Your task to perform on an android device: refresh tabs in the chrome app Image 0: 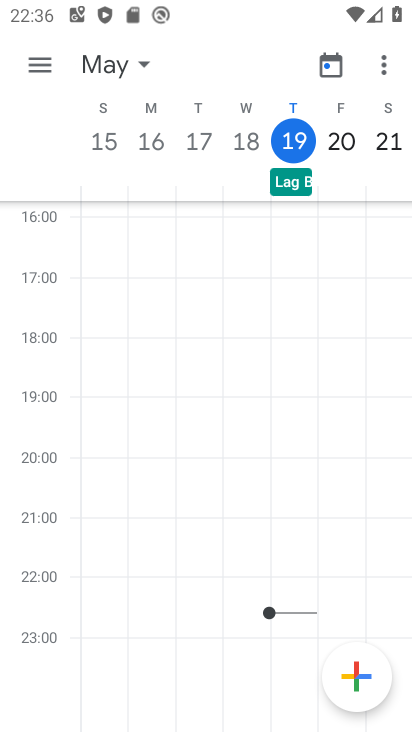
Step 0: press home button
Your task to perform on an android device: refresh tabs in the chrome app Image 1: 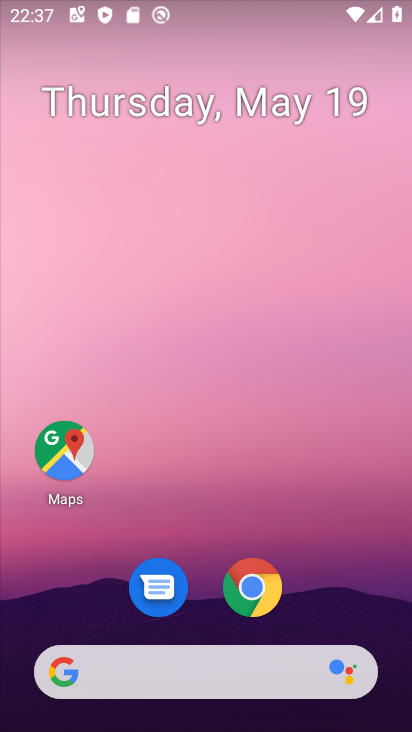
Step 1: drag from (251, 670) to (229, 185)
Your task to perform on an android device: refresh tabs in the chrome app Image 2: 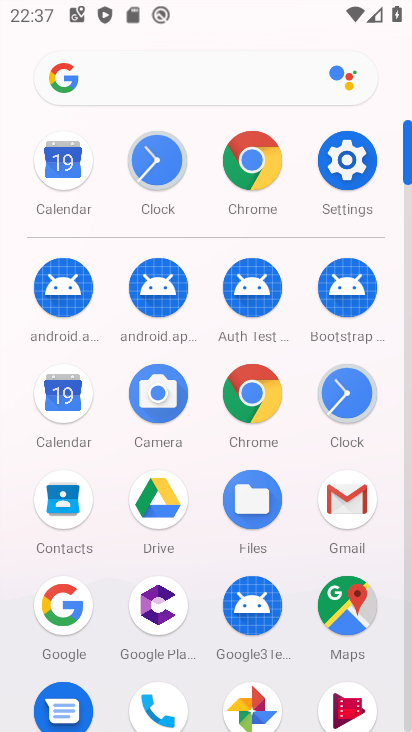
Step 2: click (233, 169)
Your task to perform on an android device: refresh tabs in the chrome app Image 3: 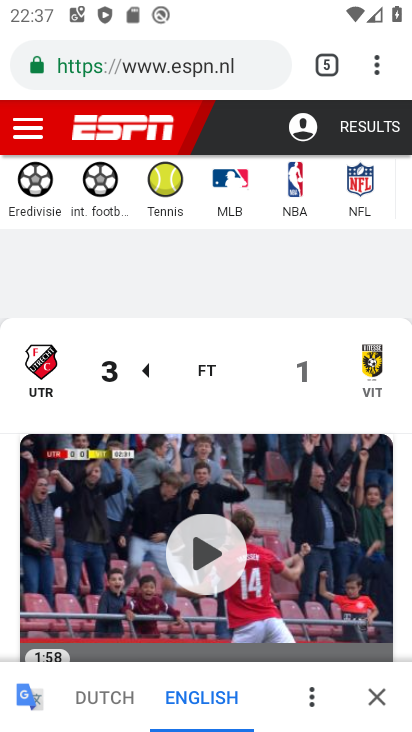
Step 3: click (379, 60)
Your task to perform on an android device: refresh tabs in the chrome app Image 4: 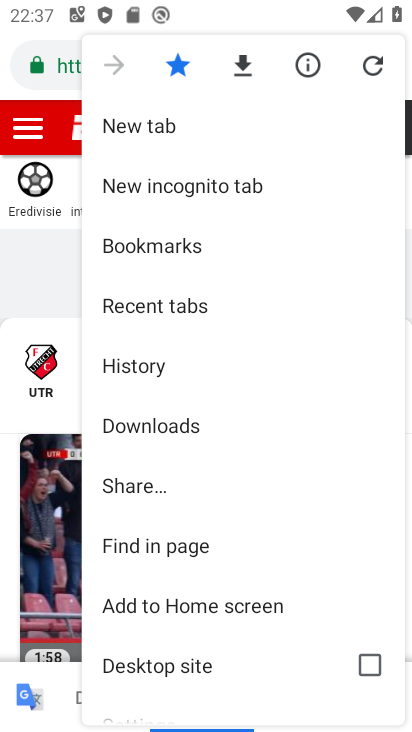
Step 4: click (367, 64)
Your task to perform on an android device: refresh tabs in the chrome app Image 5: 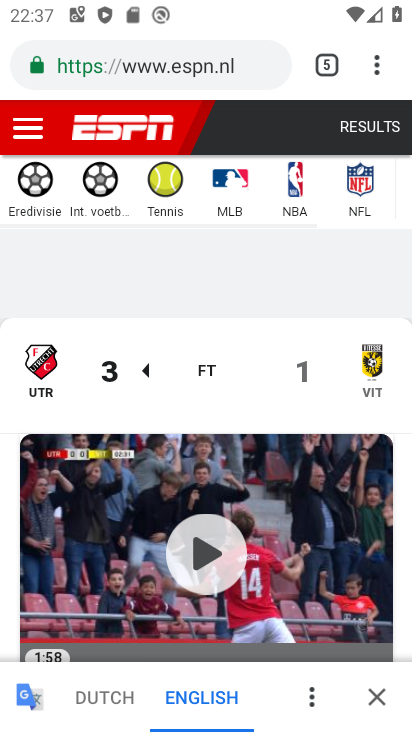
Step 5: task complete